Your task to perform on an android device: find which apps use the phone's location Image 0: 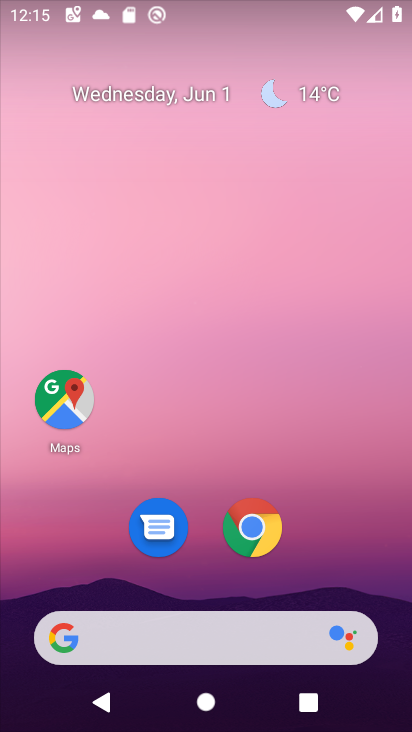
Step 0: drag from (337, 475) to (309, 7)
Your task to perform on an android device: find which apps use the phone's location Image 1: 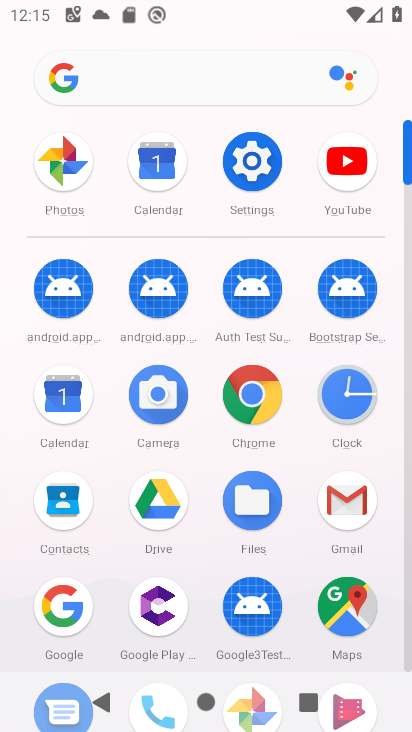
Step 1: click (249, 169)
Your task to perform on an android device: find which apps use the phone's location Image 2: 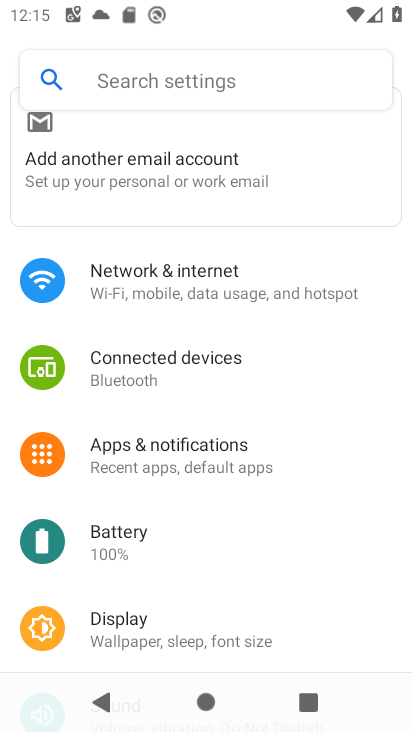
Step 2: drag from (343, 576) to (332, 320)
Your task to perform on an android device: find which apps use the phone's location Image 3: 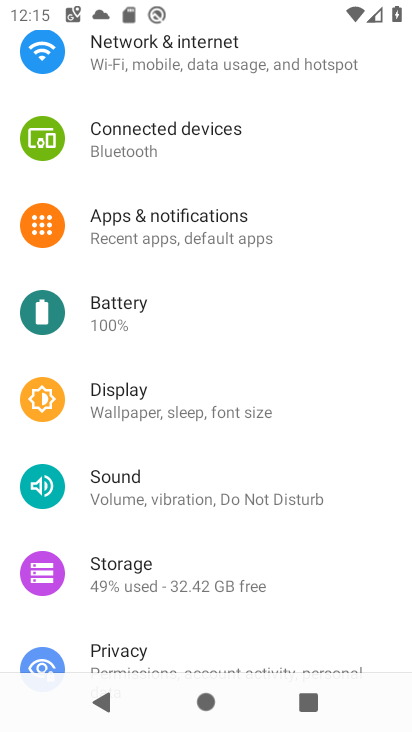
Step 3: drag from (325, 553) to (347, 345)
Your task to perform on an android device: find which apps use the phone's location Image 4: 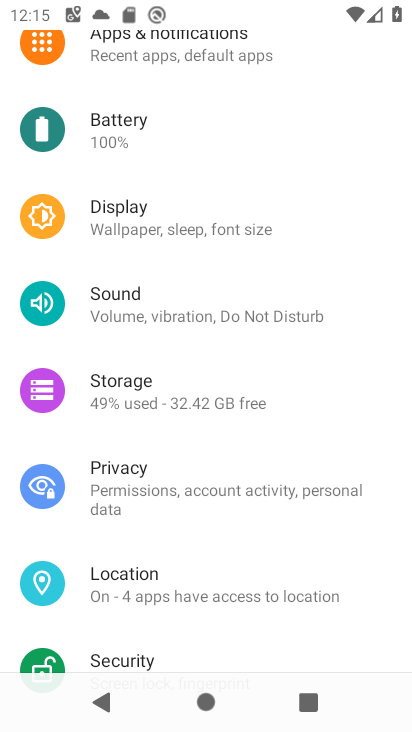
Step 4: click (119, 584)
Your task to perform on an android device: find which apps use the phone's location Image 5: 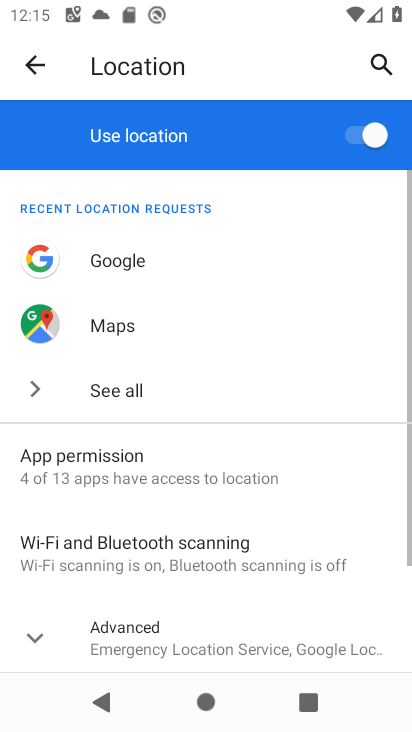
Step 5: click (92, 467)
Your task to perform on an android device: find which apps use the phone's location Image 6: 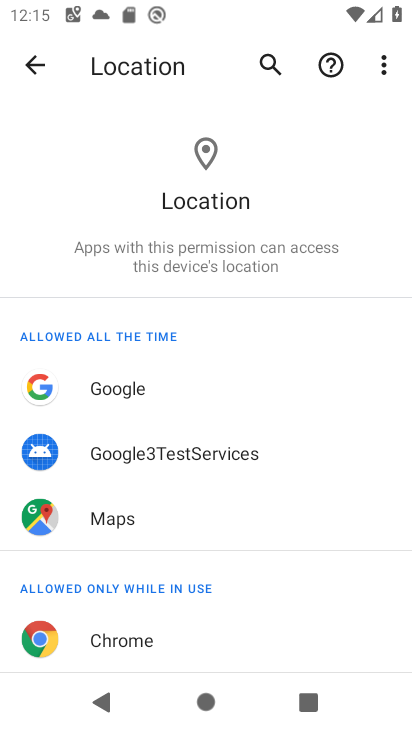
Step 6: task complete